Your task to perform on an android device: Is it going to rain today? Image 0: 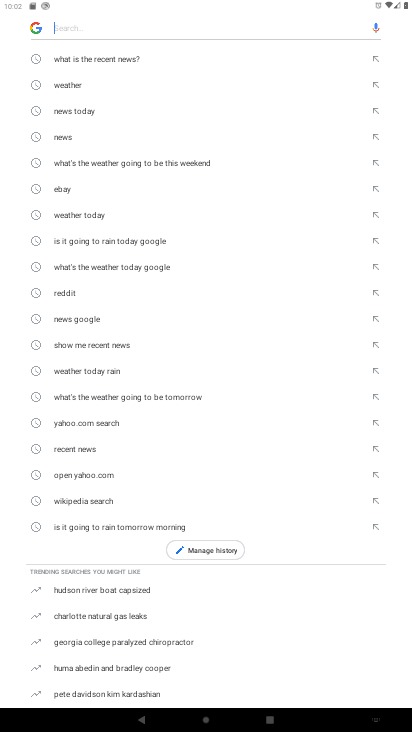
Step 0: press home button
Your task to perform on an android device: Is it going to rain today? Image 1: 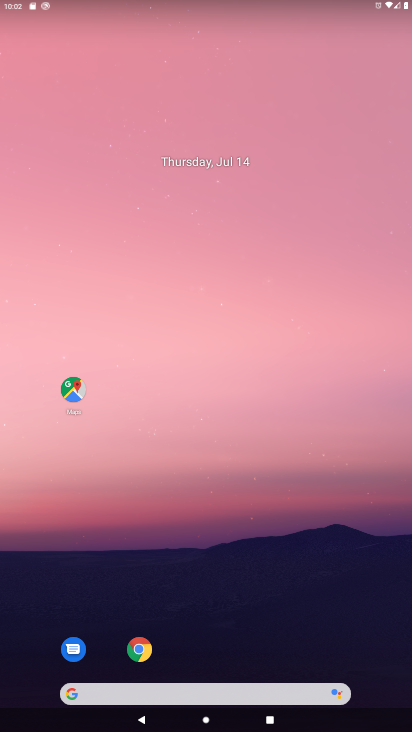
Step 1: click (199, 698)
Your task to perform on an android device: Is it going to rain today? Image 2: 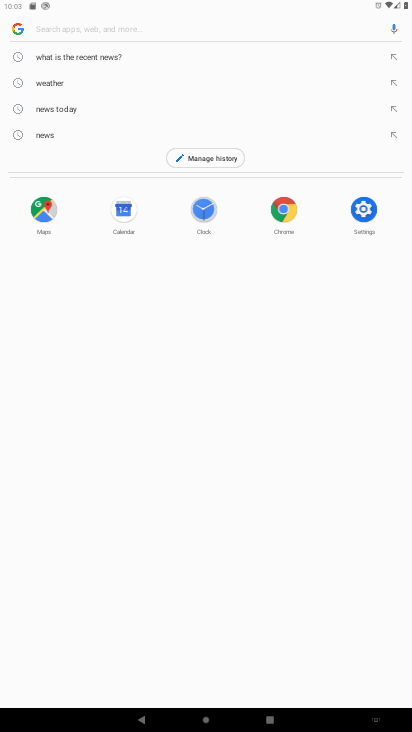
Step 2: type "Is it going to rain today?"
Your task to perform on an android device: Is it going to rain today? Image 3: 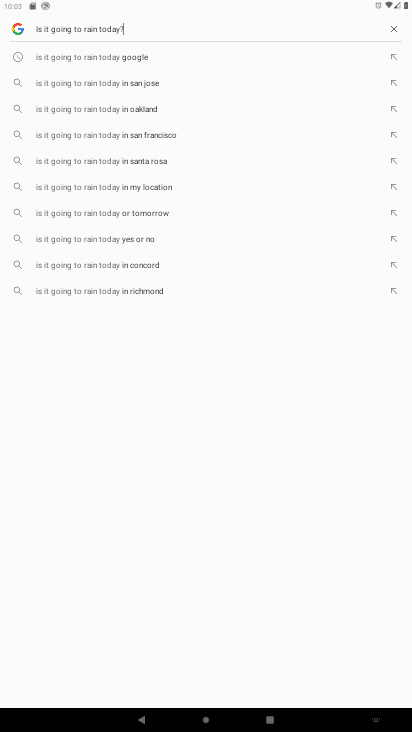
Step 3: press enter
Your task to perform on an android device: Is it going to rain today? Image 4: 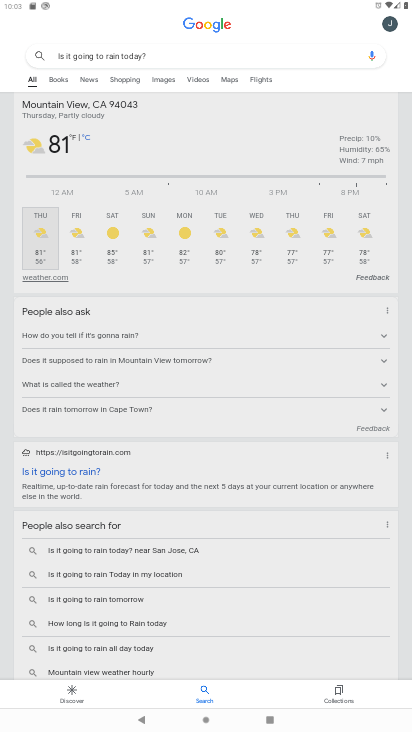
Step 4: task complete